Your task to perform on an android device: set an alarm Image 0: 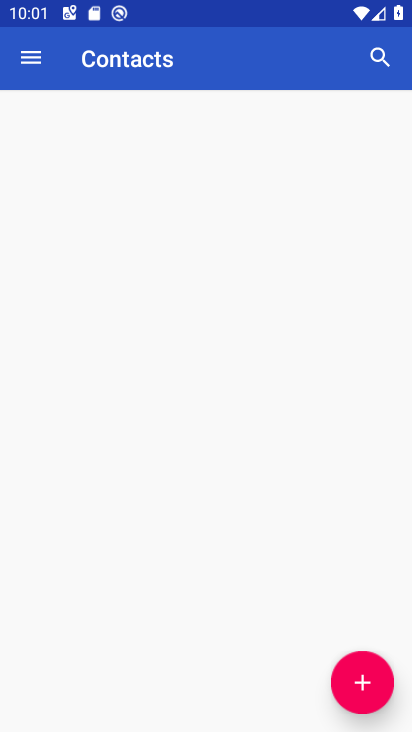
Step 0: drag from (190, 725) to (221, 144)
Your task to perform on an android device: set an alarm Image 1: 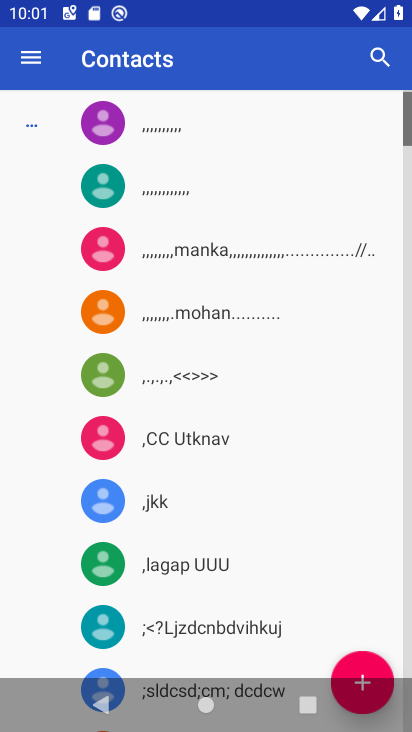
Step 1: press home button
Your task to perform on an android device: set an alarm Image 2: 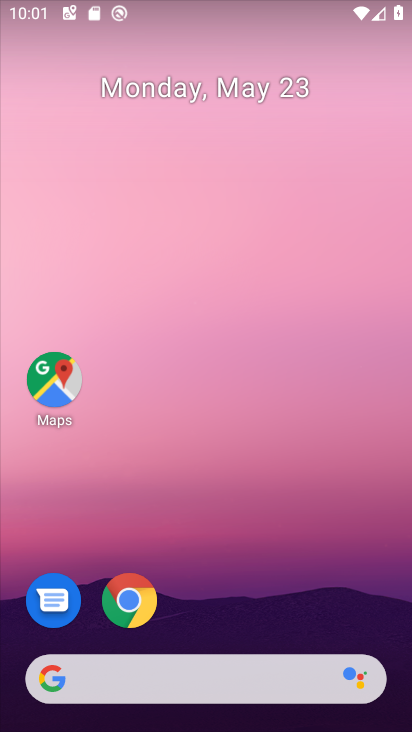
Step 2: drag from (235, 720) to (248, 137)
Your task to perform on an android device: set an alarm Image 3: 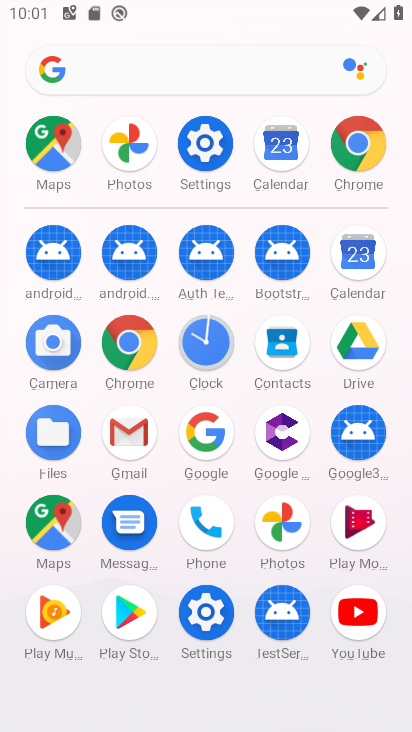
Step 3: click (210, 345)
Your task to perform on an android device: set an alarm Image 4: 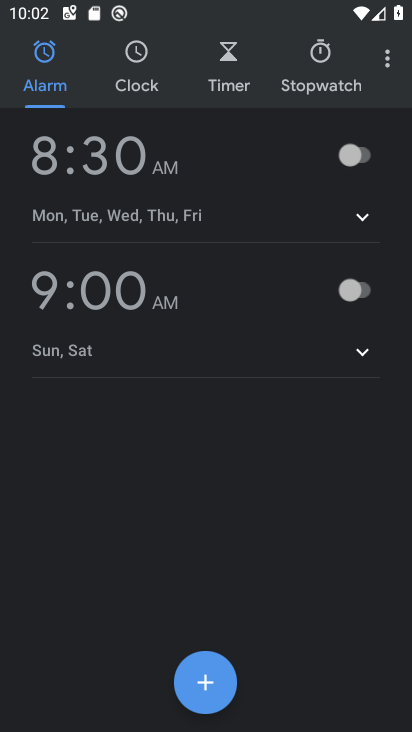
Step 4: click (205, 678)
Your task to perform on an android device: set an alarm Image 5: 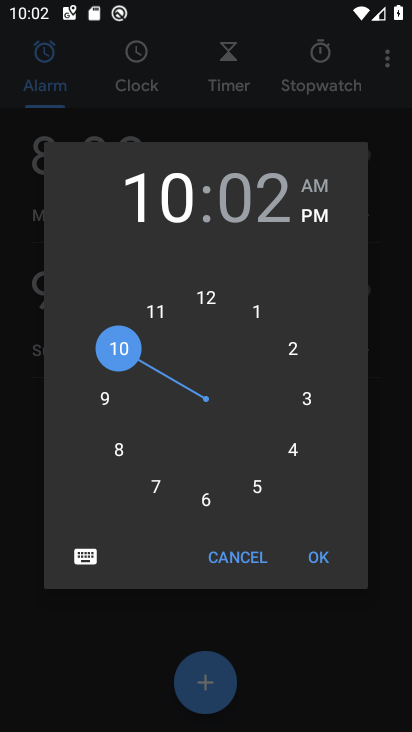
Step 5: click (211, 497)
Your task to perform on an android device: set an alarm Image 6: 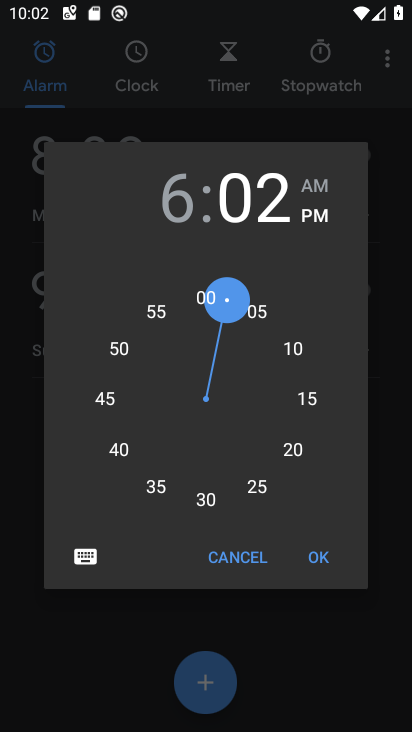
Step 6: click (317, 553)
Your task to perform on an android device: set an alarm Image 7: 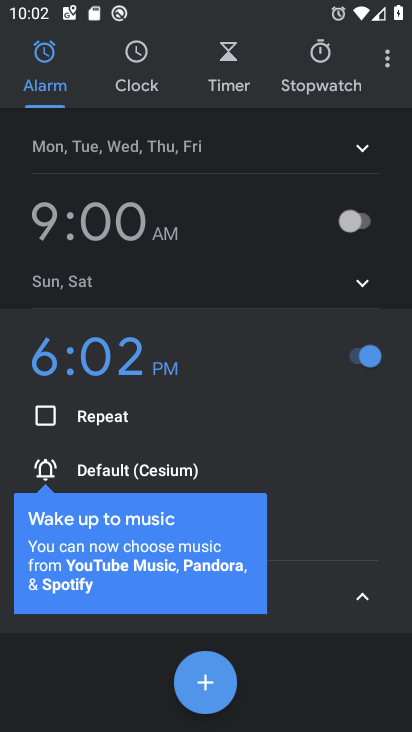
Step 7: task complete